Your task to perform on an android device: What is the news today? Image 0: 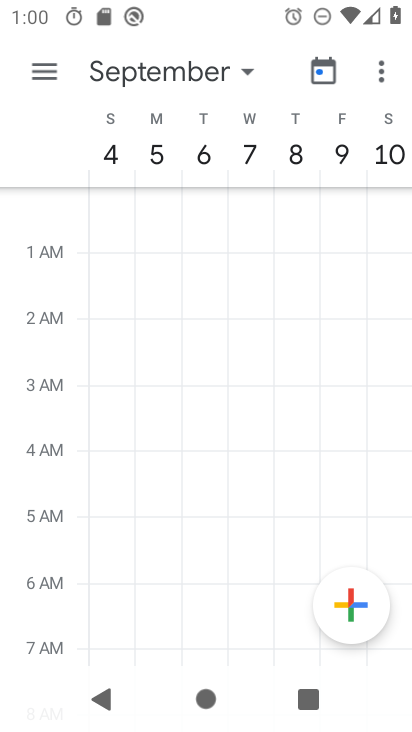
Step 0: press home button
Your task to perform on an android device: What is the news today? Image 1: 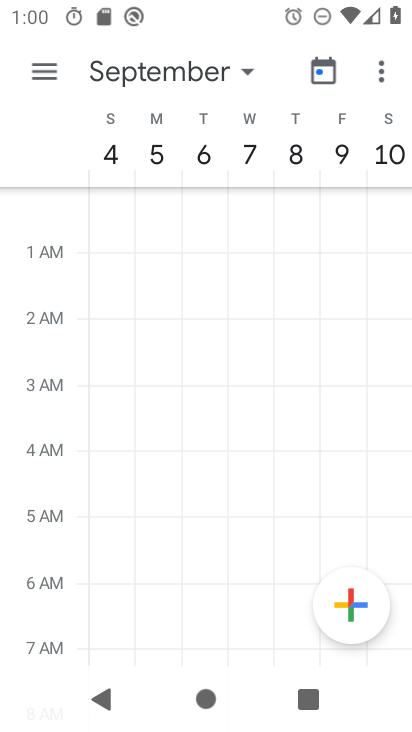
Step 1: press home button
Your task to perform on an android device: What is the news today? Image 2: 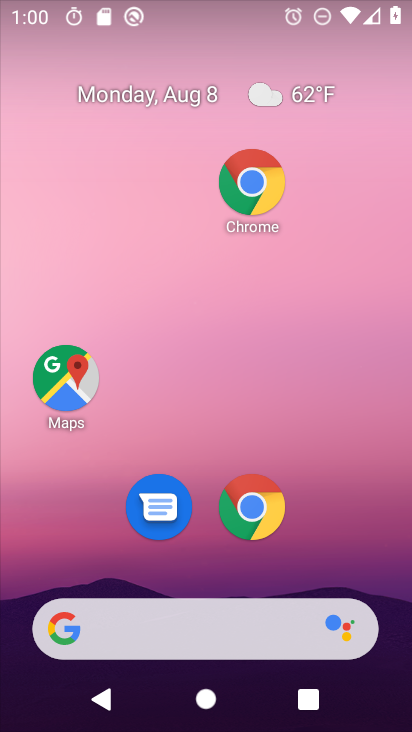
Step 2: drag from (311, 522) to (372, 24)
Your task to perform on an android device: What is the news today? Image 3: 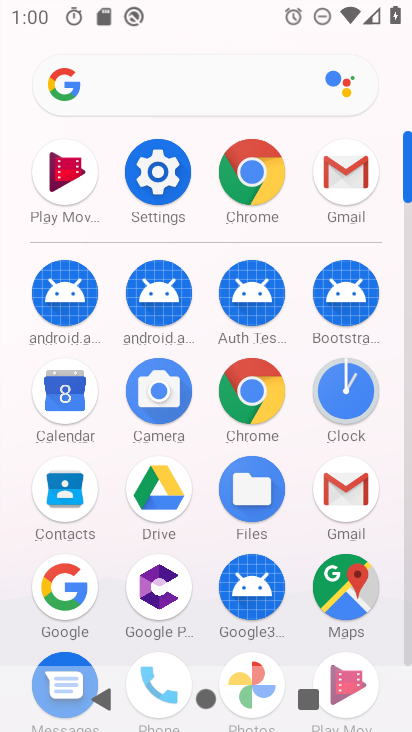
Step 3: click (272, 405)
Your task to perform on an android device: What is the news today? Image 4: 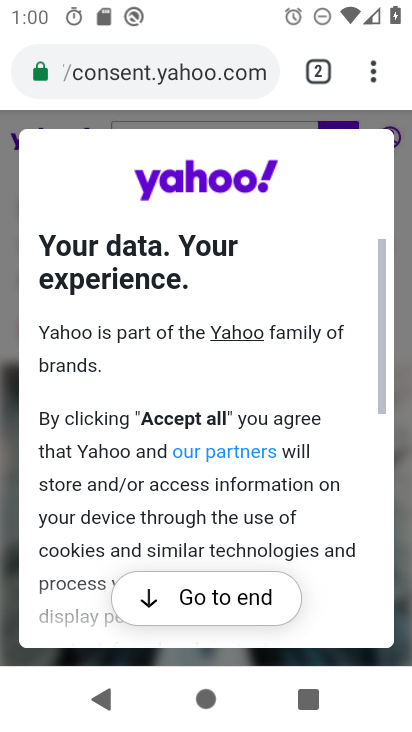
Step 4: click (189, 74)
Your task to perform on an android device: What is the news today? Image 5: 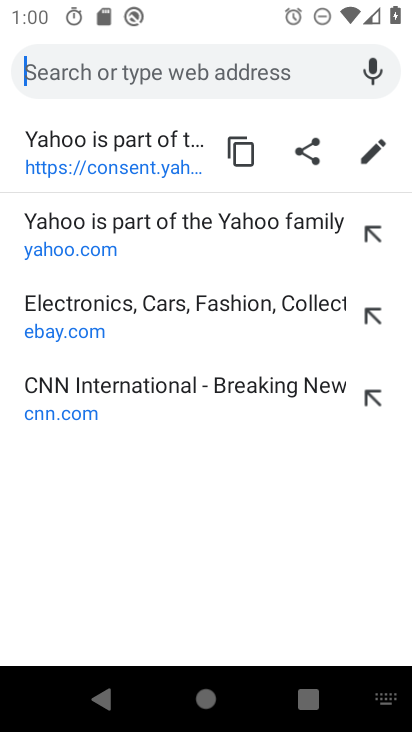
Step 5: type "news"
Your task to perform on an android device: What is the news today? Image 6: 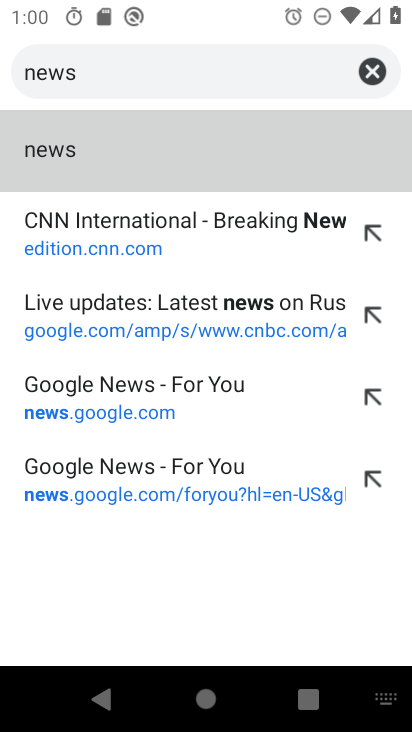
Step 6: click (60, 161)
Your task to perform on an android device: What is the news today? Image 7: 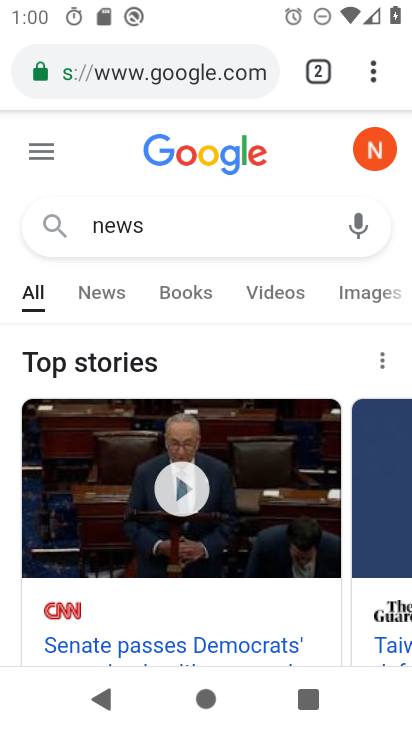
Step 7: drag from (205, 531) to (293, 54)
Your task to perform on an android device: What is the news today? Image 8: 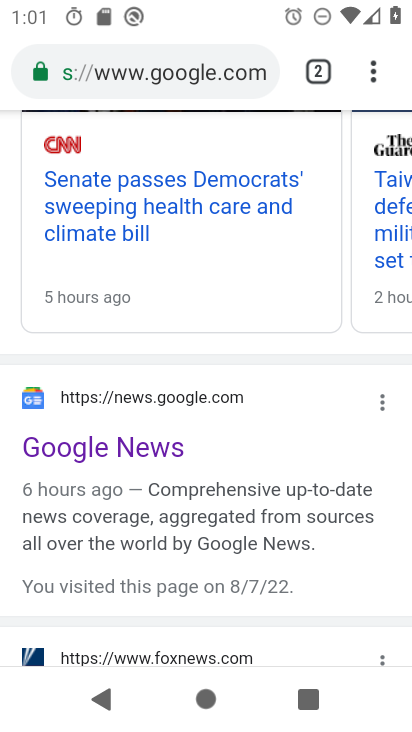
Step 8: click (114, 450)
Your task to perform on an android device: What is the news today? Image 9: 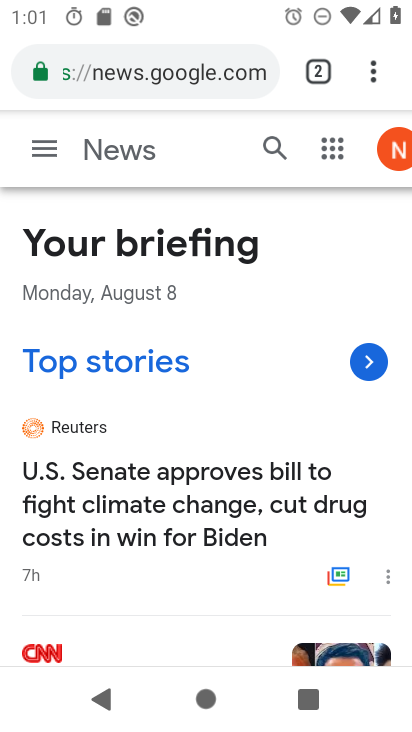
Step 9: task complete